Your task to perform on an android device: Check the settings for the Amazon Music app Image 0: 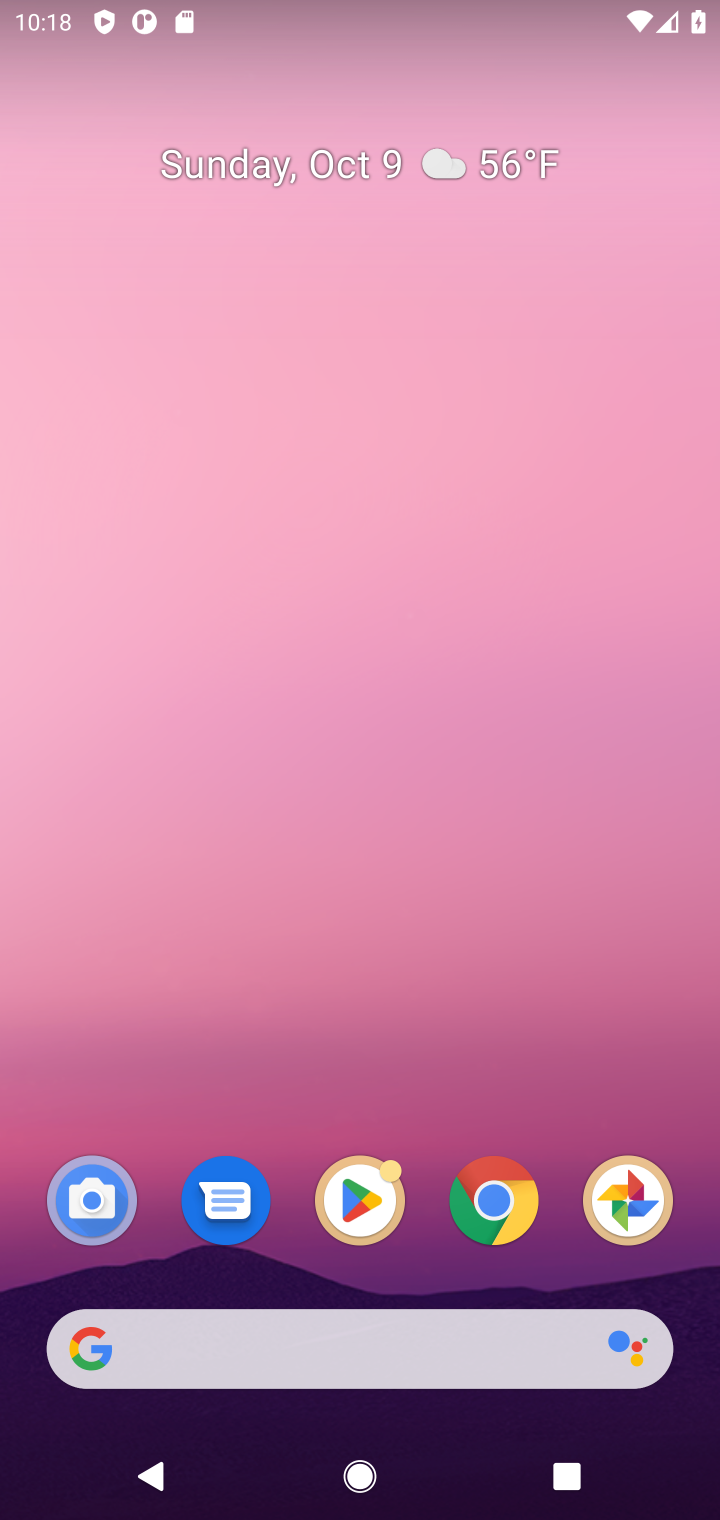
Step 0: drag from (351, 1060) to (396, 49)
Your task to perform on an android device: Check the settings for the Amazon Music app Image 1: 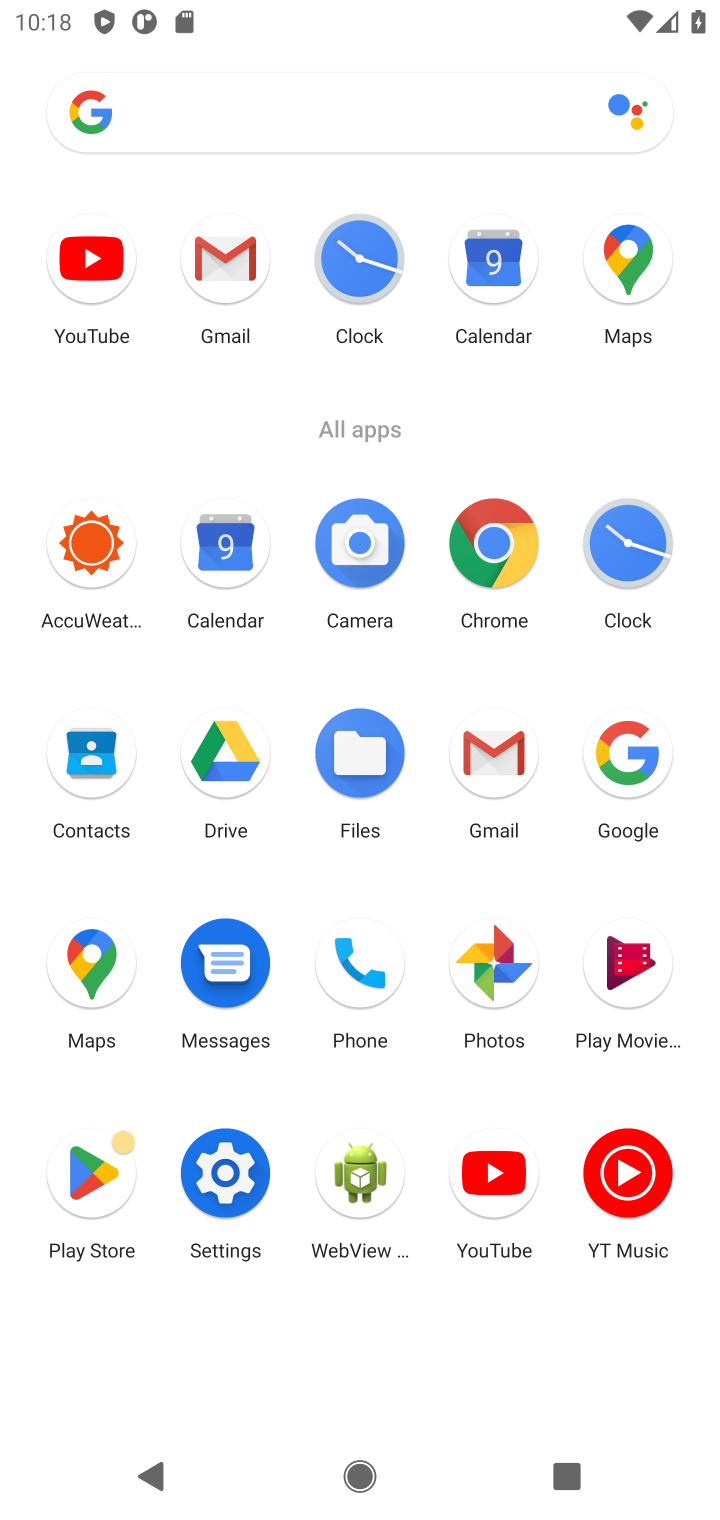
Step 1: task complete